Your task to perform on an android device: open the mobile data screen to see how much data has been used Image 0: 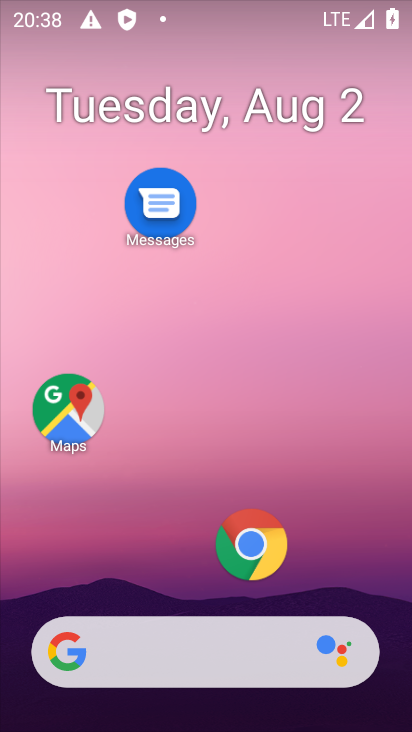
Step 0: drag from (179, 519) to (245, 97)
Your task to perform on an android device: open the mobile data screen to see how much data has been used Image 1: 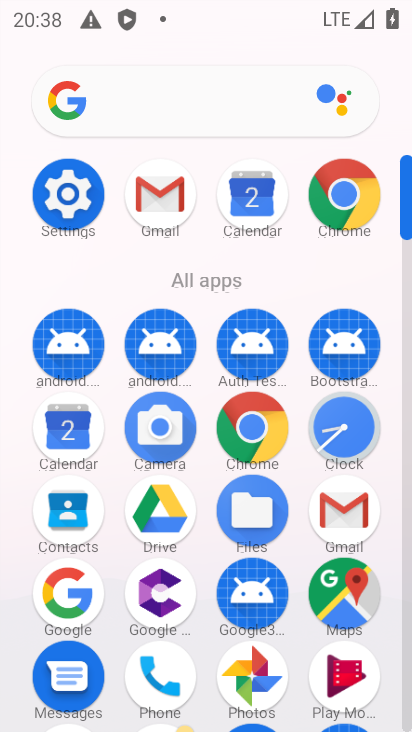
Step 1: click (77, 201)
Your task to perform on an android device: open the mobile data screen to see how much data has been used Image 2: 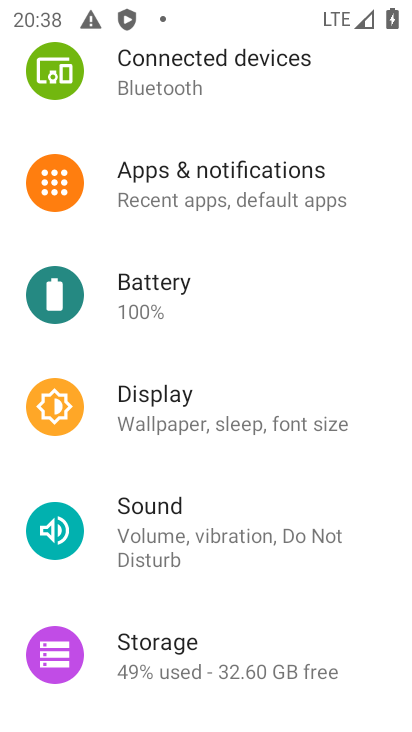
Step 2: drag from (222, 138) to (243, 626)
Your task to perform on an android device: open the mobile data screen to see how much data has been used Image 3: 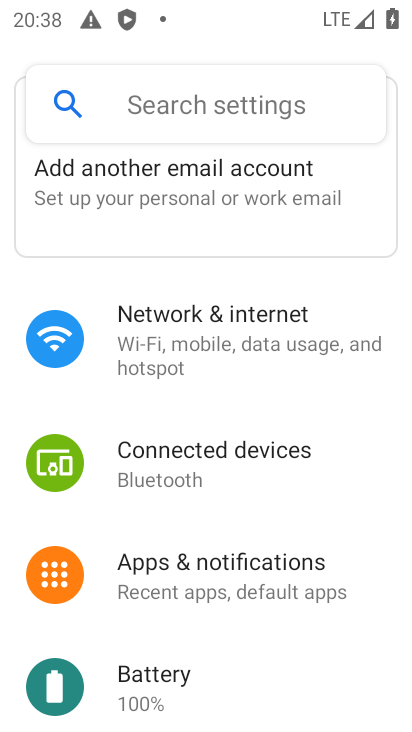
Step 3: click (211, 327)
Your task to perform on an android device: open the mobile data screen to see how much data has been used Image 4: 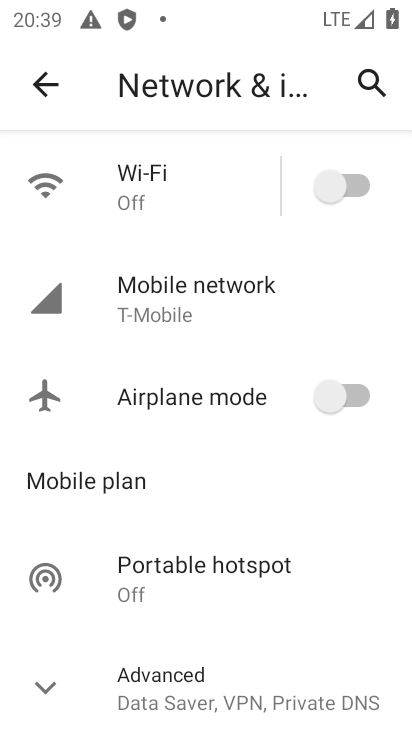
Step 4: click (197, 303)
Your task to perform on an android device: open the mobile data screen to see how much data has been used Image 5: 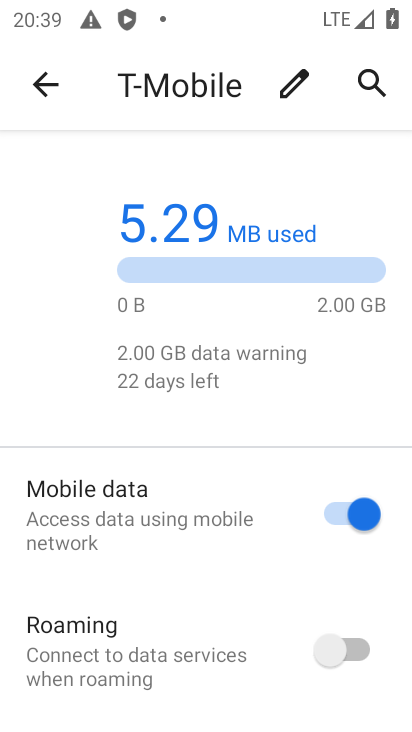
Step 5: drag from (149, 584) to (198, 229)
Your task to perform on an android device: open the mobile data screen to see how much data has been used Image 6: 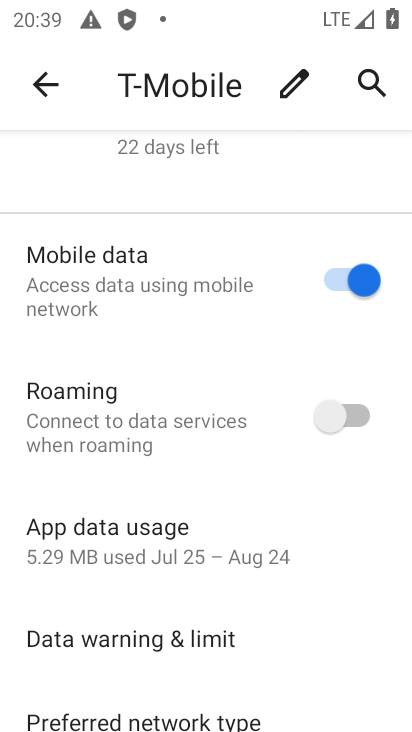
Step 6: click (151, 535)
Your task to perform on an android device: open the mobile data screen to see how much data has been used Image 7: 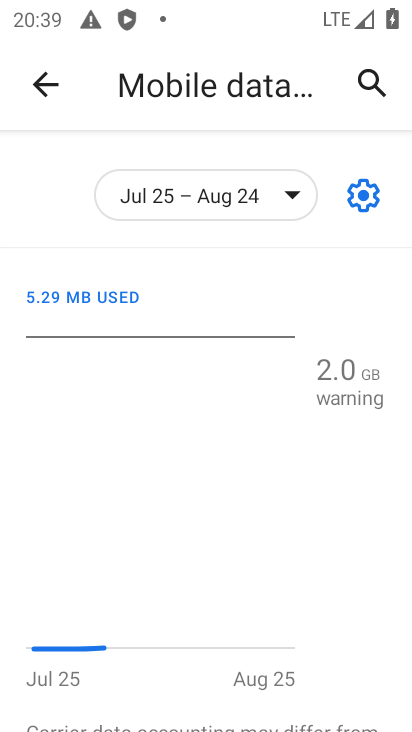
Step 7: task complete